Your task to perform on an android device: change the clock display to analog Image 0: 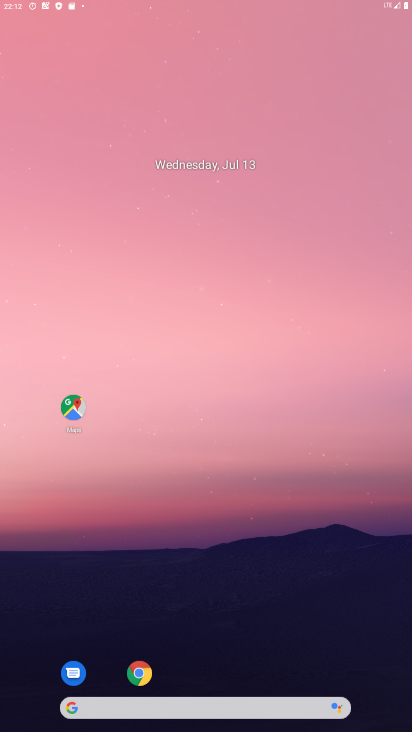
Step 0: click (260, 268)
Your task to perform on an android device: change the clock display to analog Image 1: 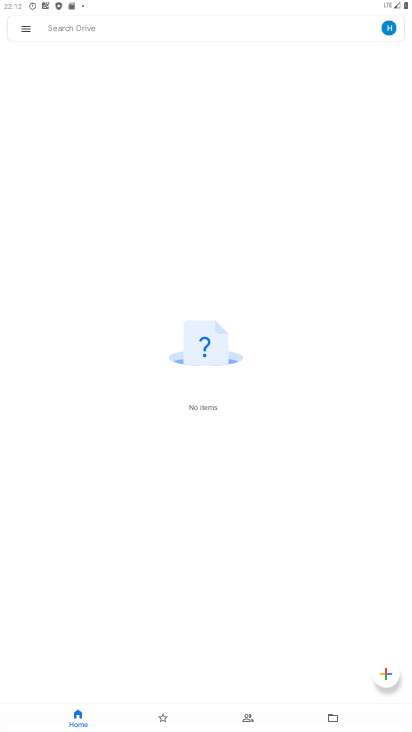
Step 1: press home button
Your task to perform on an android device: change the clock display to analog Image 2: 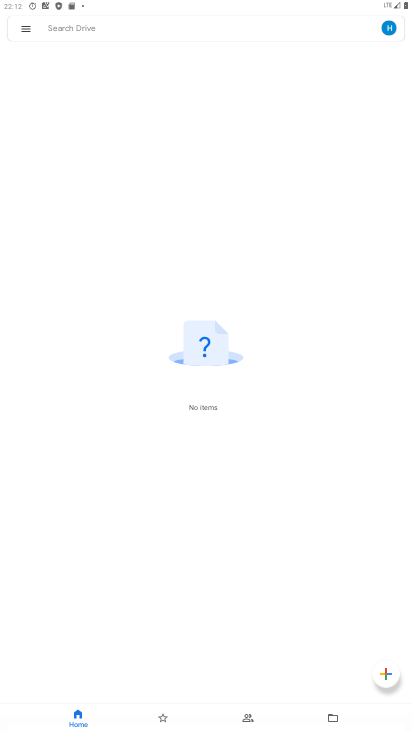
Step 2: press home button
Your task to perform on an android device: change the clock display to analog Image 3: 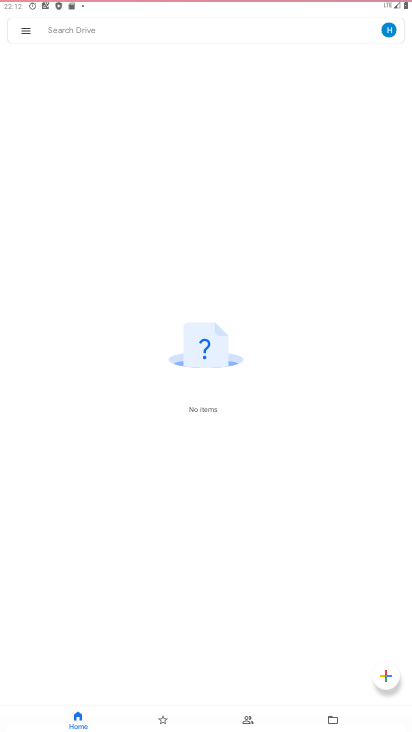
Step 3: drag from (233, 522) to (221, 193)
Your task to perform on an android device: change the clock display to analog Image 4: 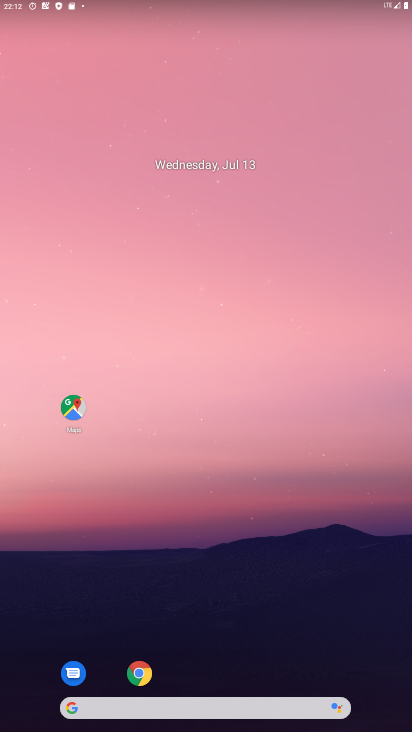
Step 4: drag from (183, 591) to (201, 18)
Your task to perform on an android device: change the clock display to analog Image 5: 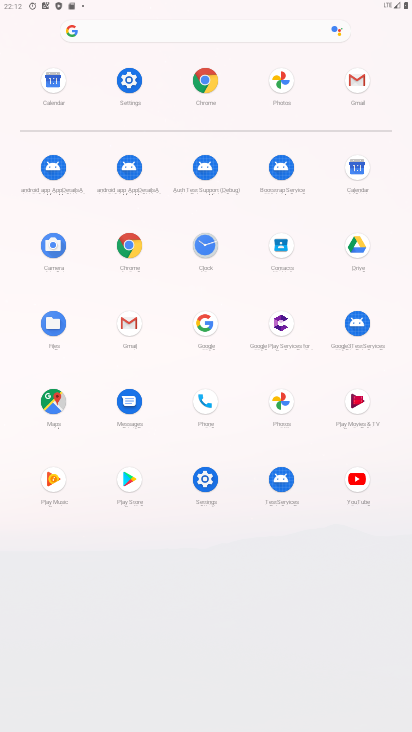
Step 5: click (128, 79)
Your task to perform on an android device: change the clock display to analog Image 6: 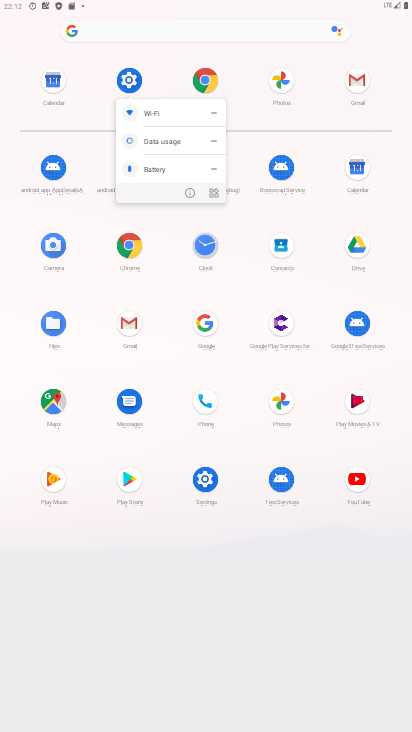
Step 6: click (204, 246)
Your task to perform on an android device: change the clock display to analog Image 7: 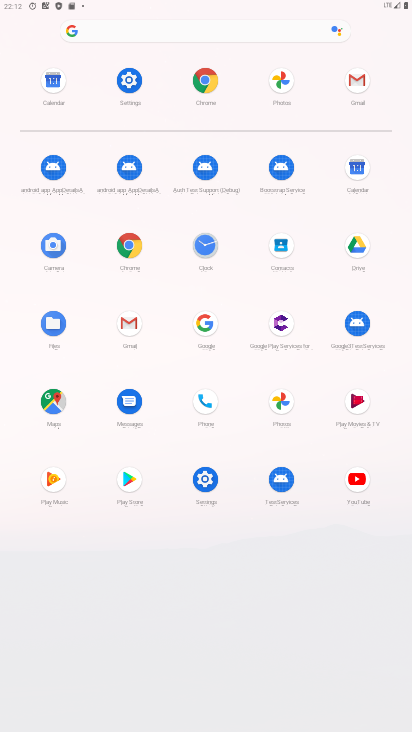
Step 7: click (204, 246)
Your task to perform on an android device: change the clock display to analog Image 8: 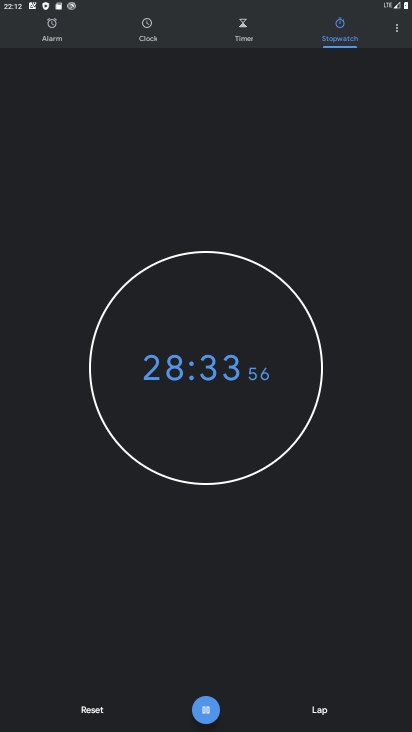
Step 8: click (399, 30)
Your task to perform on an android device: change the clock display to analog Image 9: 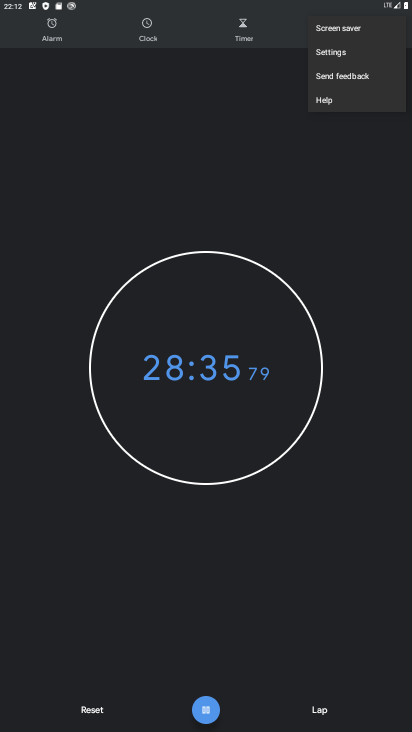
Step 9: click (353, 50)
Your task to perform on an android device: change the clock display to analog Image 10: 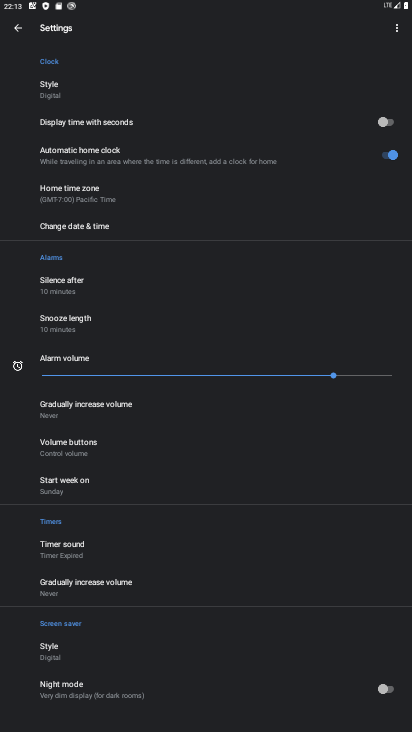
Step 10: click (97, 87)
Your task to perform on an android device: change the clock display to analog Image 11: 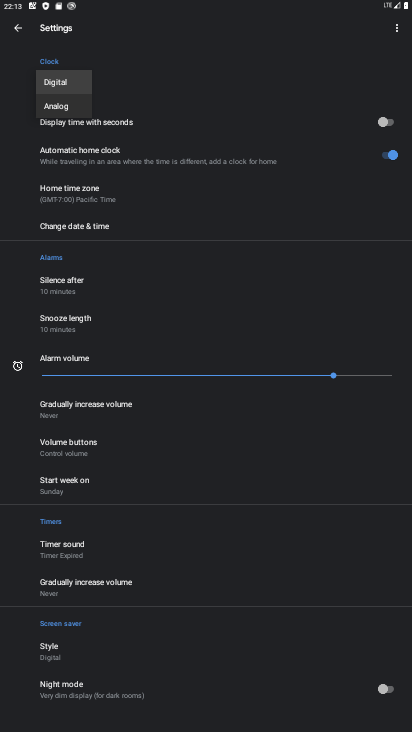
Step 11: click (67, 104)
Your task to perform on an android device: change the clock display to analog Image 12: 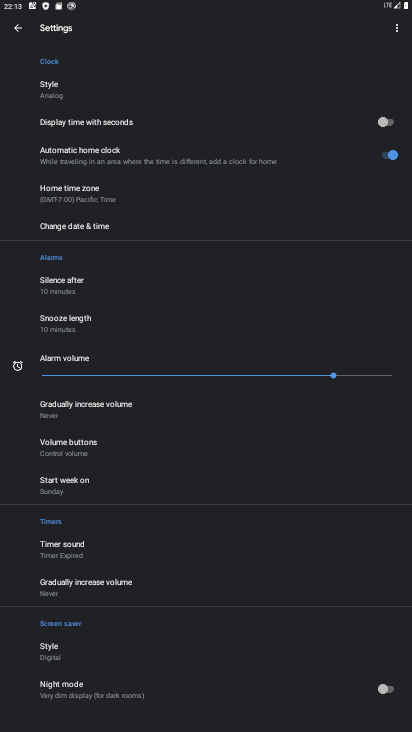
Step 12: task complete